Your task to perform on an android device: open app "Google Sheets" Image 0: 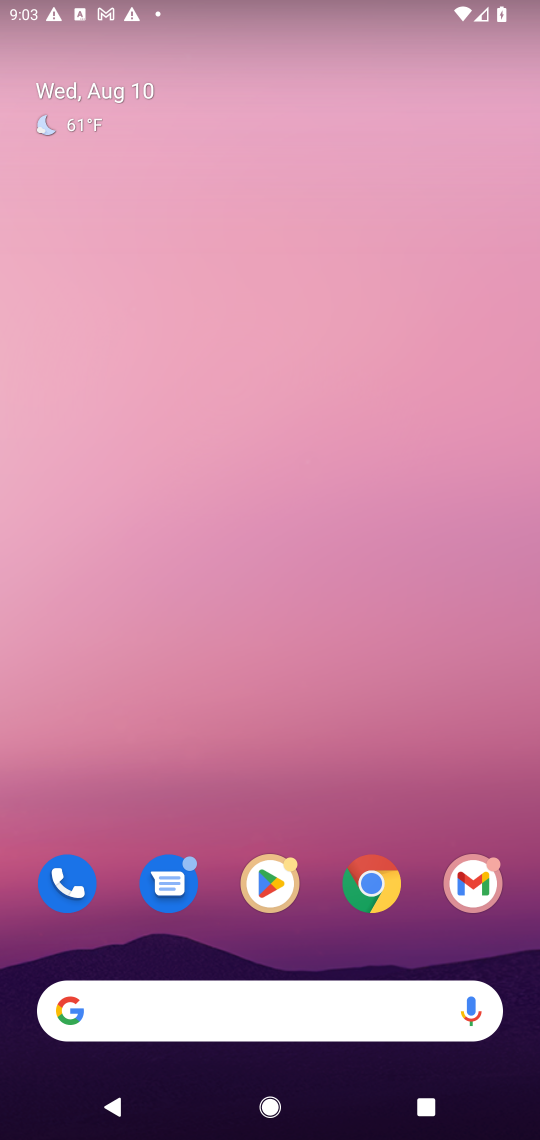
Step 0: click (271, 863)
Your task to perform on an android device: open app "Google Sheets" Image 1: 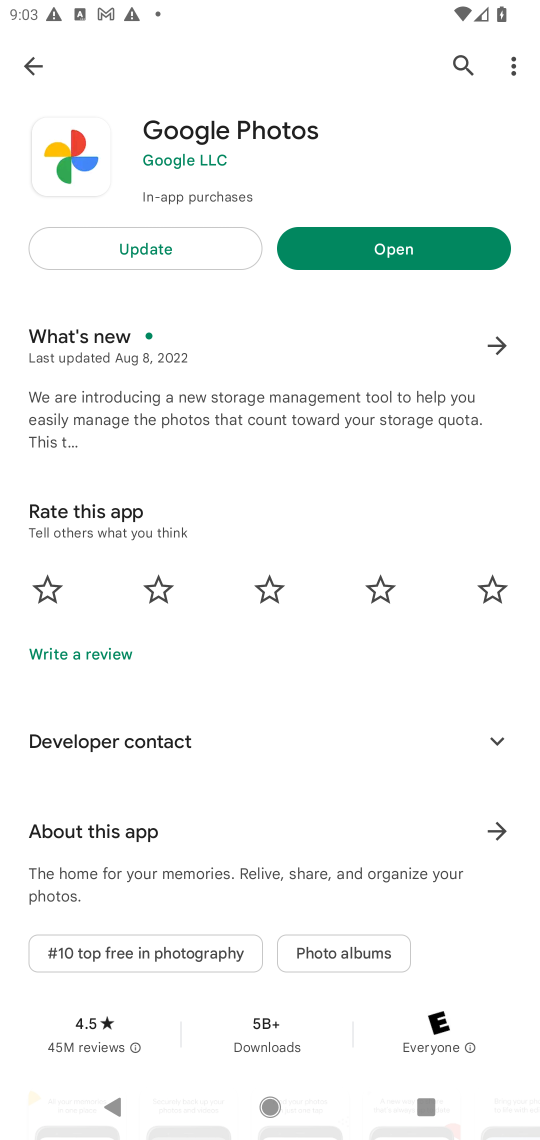
Step 1: click (459, 58)
Your task to perform on an android device: open app "Google Sheets" Image 2: 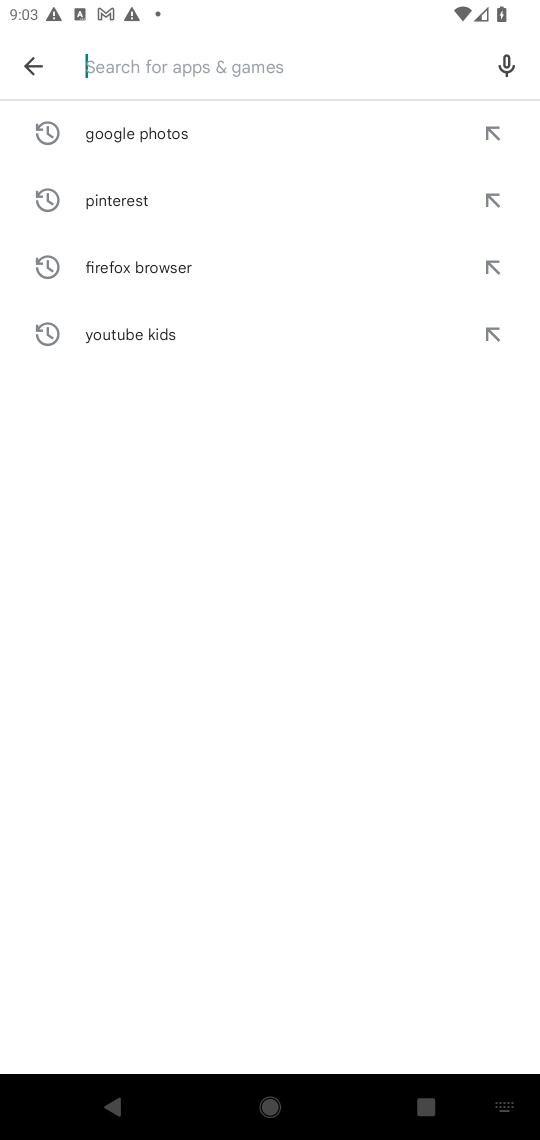
Step 2: type "Google Sheets"
Your task to perform on an android device: open app "Google Sheets" Image 3: 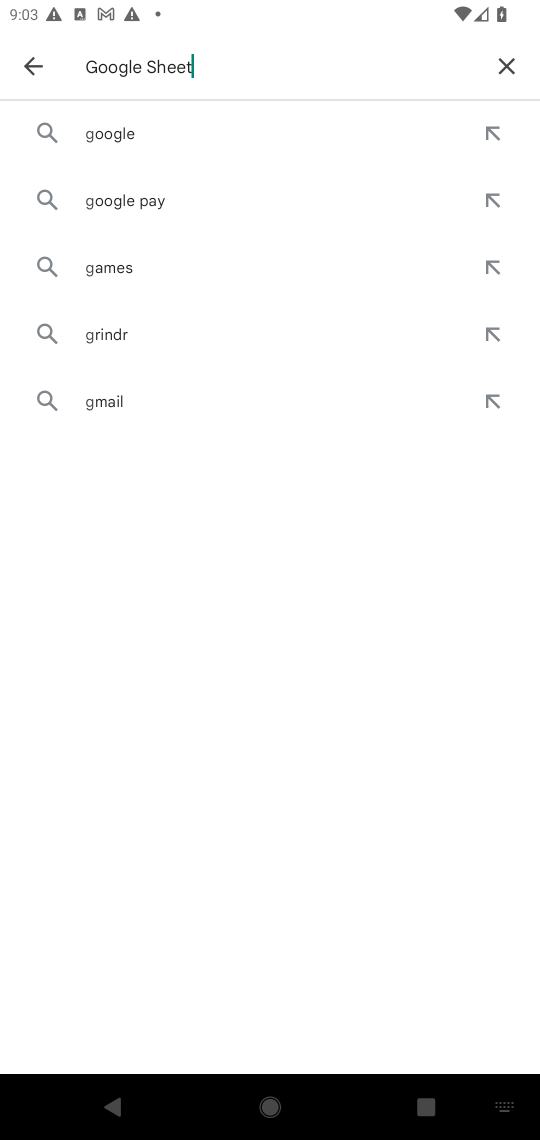
Step 3: type ""
Your task to perform on an android device: open app "Google Sheets" Image 4: 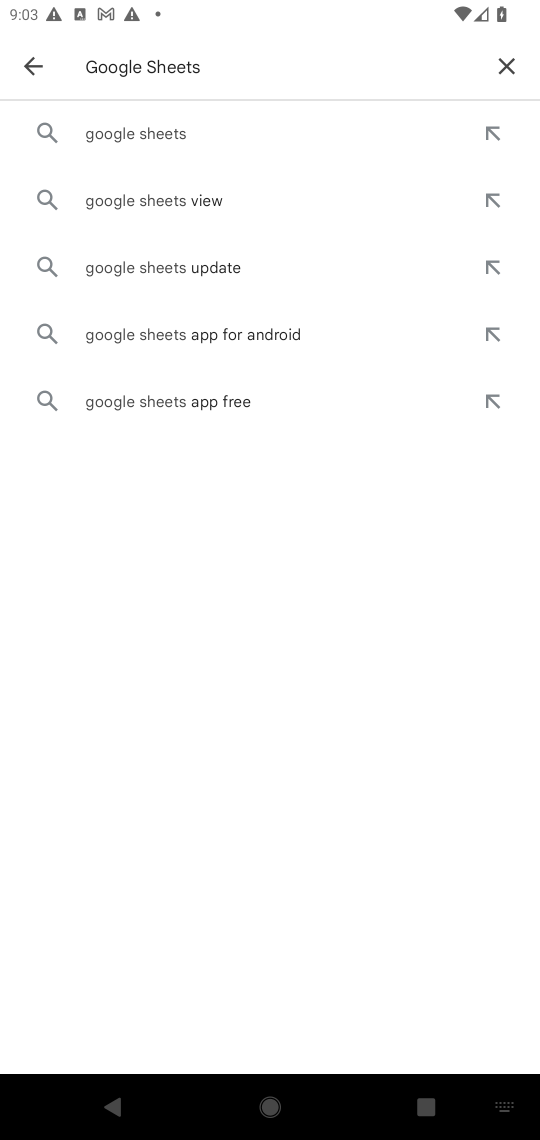
Step 4: click (150, 127)
Your task to perform on an android device: open app "Google Sheets" Image 5: 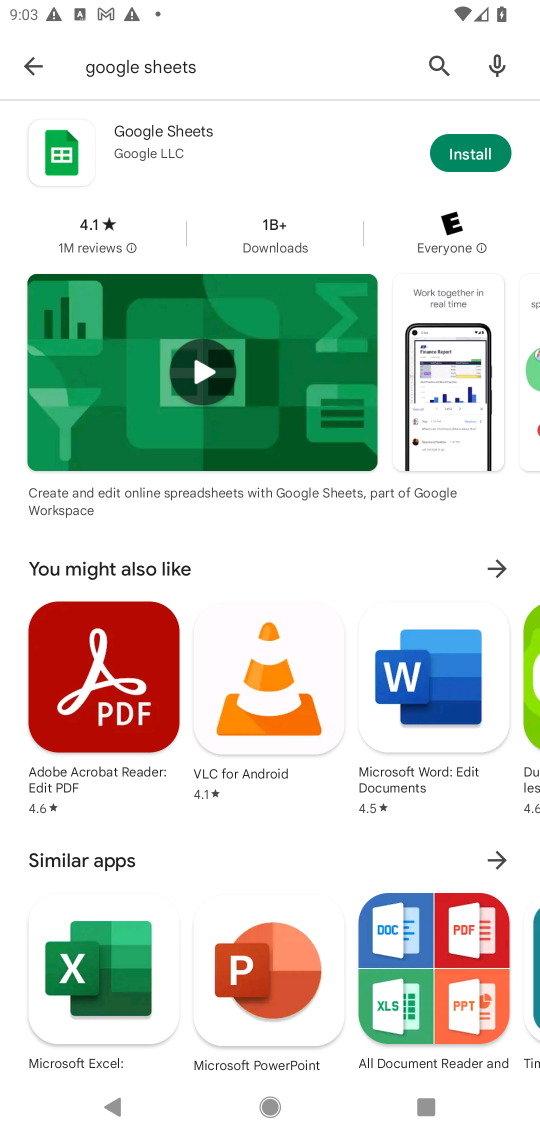
Step 5: task complete